Your task to perform on an android device: Go to CNN.com Image 0: 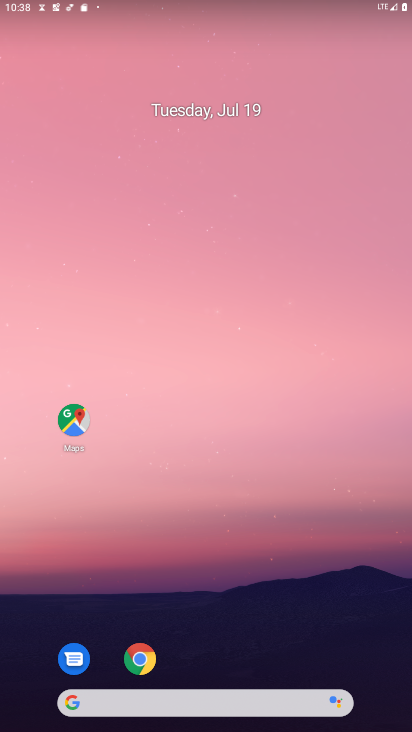
Step 0: drag from (198, 661) to (330, 2)
Your task to perform on an android device: Go to CNN.com Image 1: 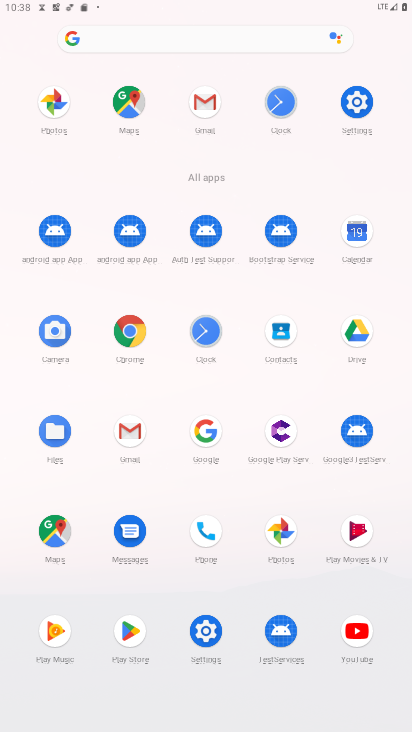
Step 1: click (116, 330)
Your task to perform on an android device: Go to CNN.com Image 2: 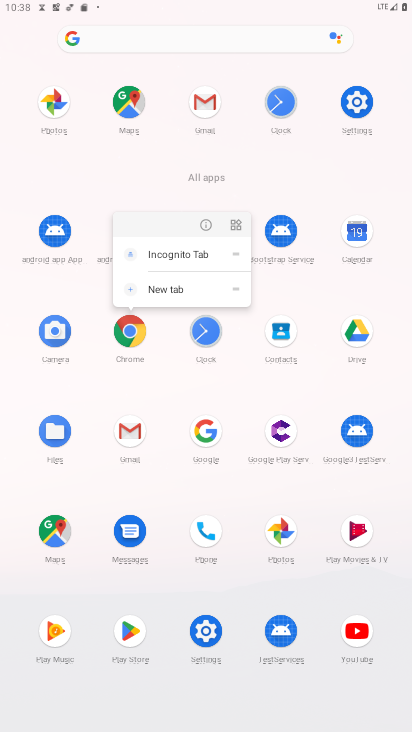
Step 2: click (207, 222)
Your task to perform on an android device: Go to CNN.com Image 3: 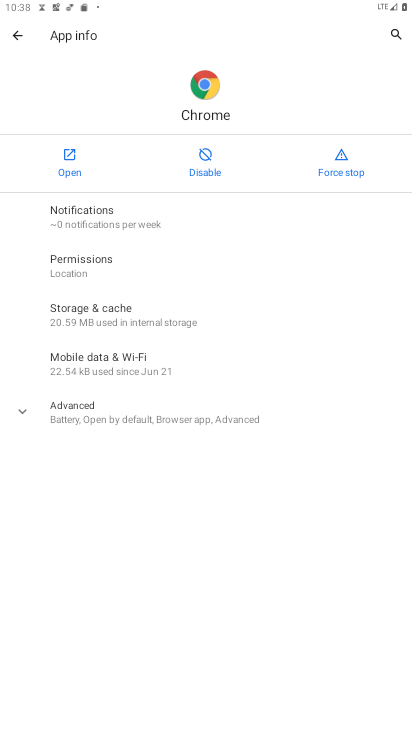
Step 3: click (64, 168)
Your task to perform on an android device: Go to CNN.com Image 4: 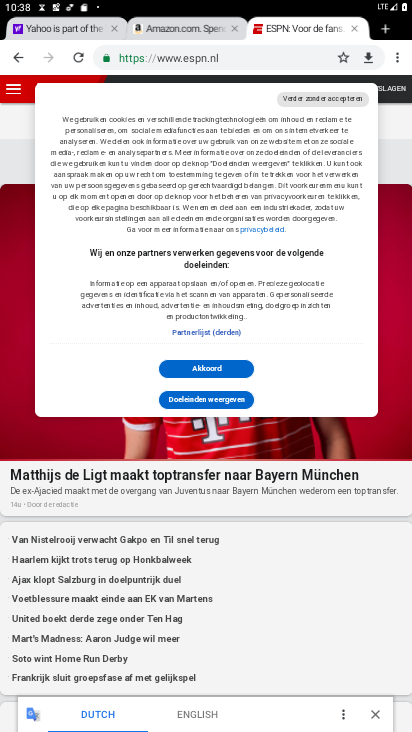
Step 4: click (352, 26)
Your task to perform on an android device: Go to CNN.com Image 5: 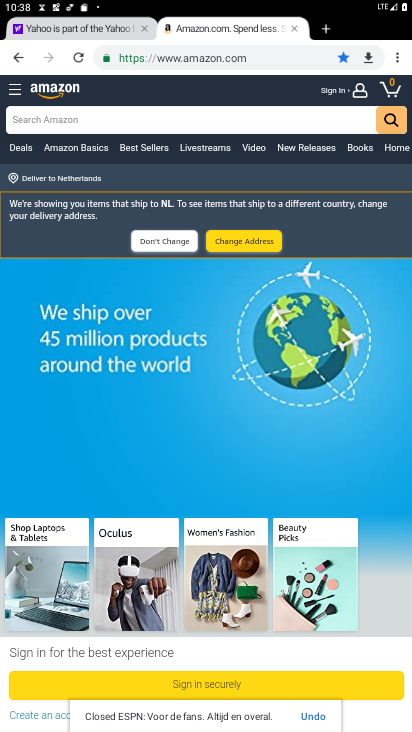
Step 5: click (273, 36)
Your task to perform on an android device: Go to CNN.com Image 6: 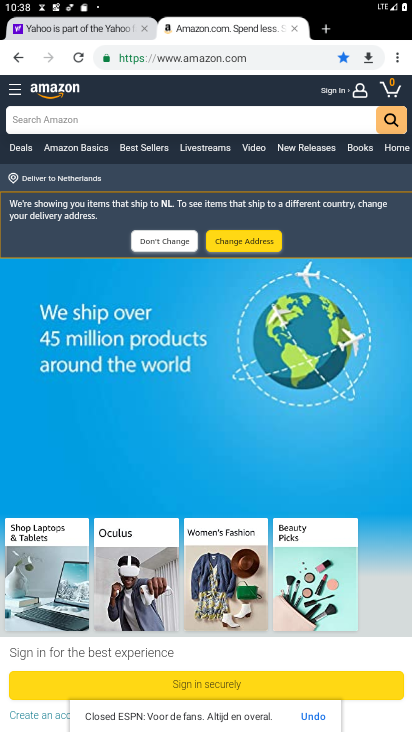
Step 6: click (290, 31)
Your task to perform on an android device: Go to CNN.com Image 7: 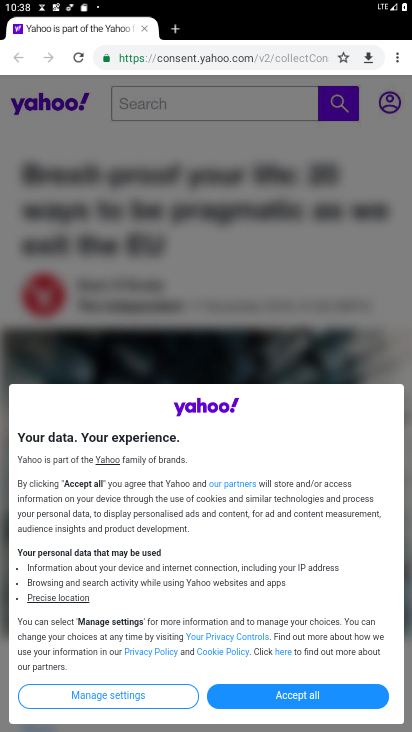
Step 7: click (185, 27)
Your task to perform on an android device: Go to CNN.com Image 8: 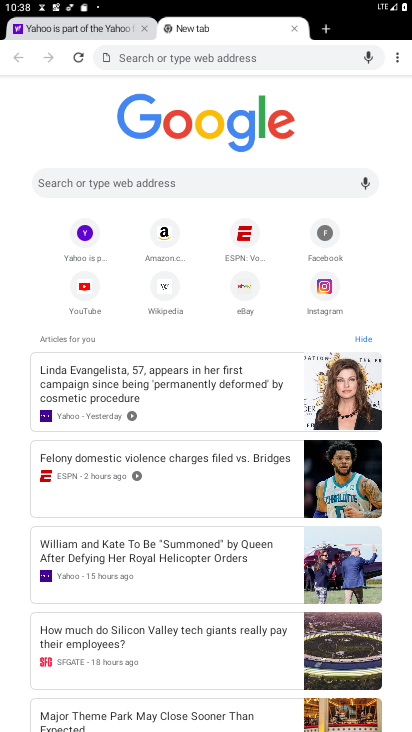
Step 8: click (166, 176)
Your task to perform on an android device: Go to CNN.com Image 9: 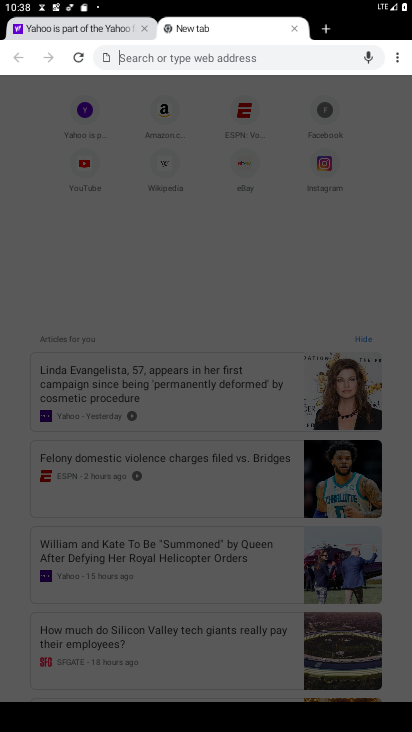
Step 9: type "cnn"
Your task to perform on an android device: Go to CNN.com Image 10: 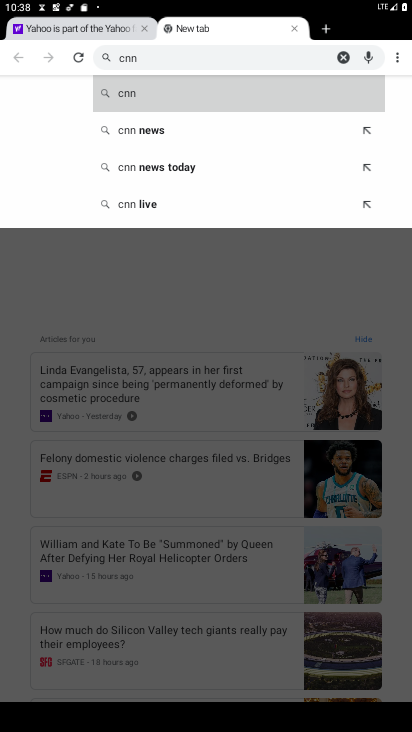
Step 10: click (120, 99)
Your task to perform on an android device: Go to CNN.com Image 11: 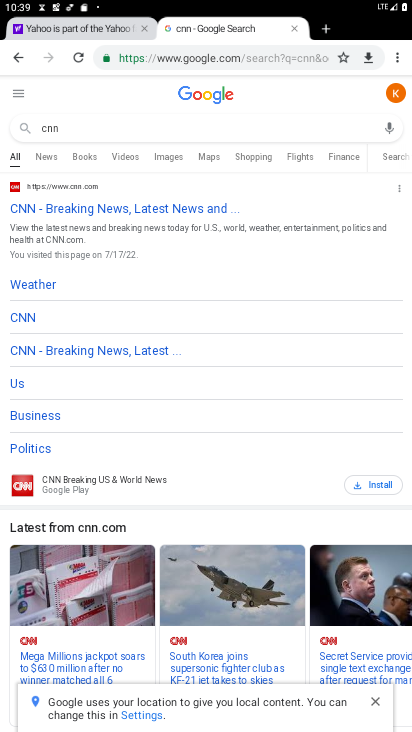
Step 11: click (119, 214)
Your task to perform on an android device: Go to CNN.com Image 12: 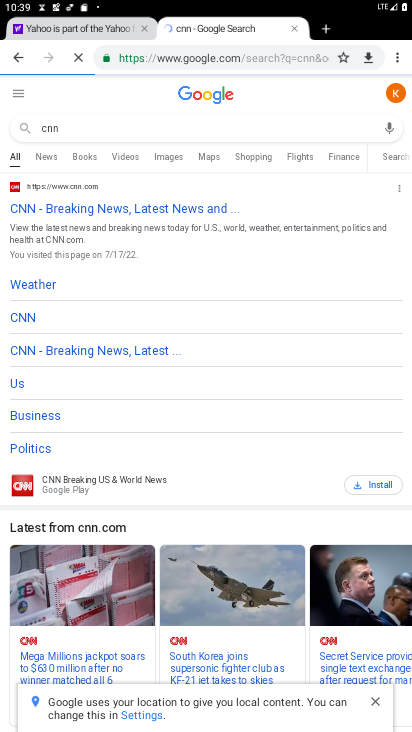
Step 12: task complete